Your task to perform on an android device: Is it going to rain today? Image 0: 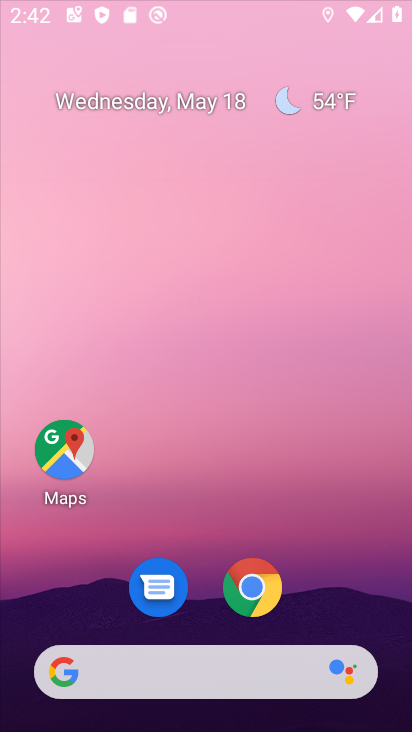
Step 0: drag from (192, 601) to (239, 36)
Your task to perform on an android device: Is it going to rain today? Image 1: 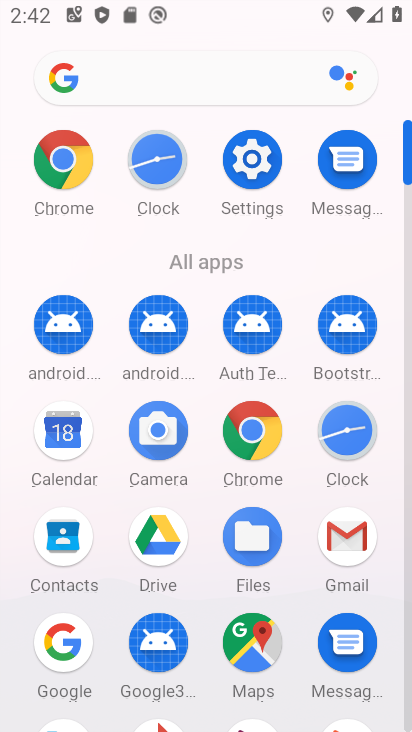
Step 1: click (192, 81)
Your task to perform on an android device: Is it going to rain today? Image 2: 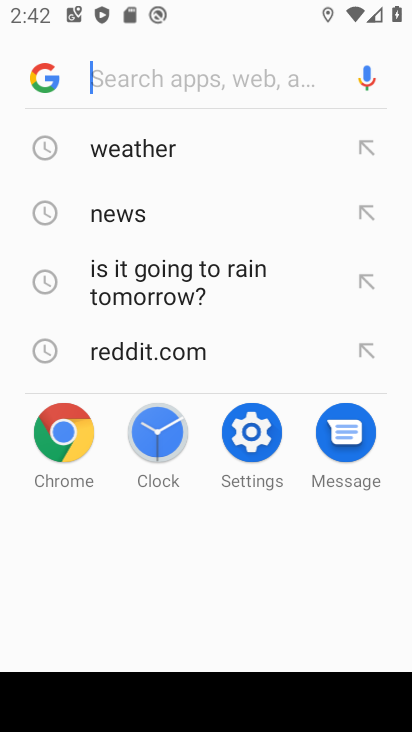
Step 2: type "rain today"
Your task to perform on an android device: Is it going to rain today? Image 3: 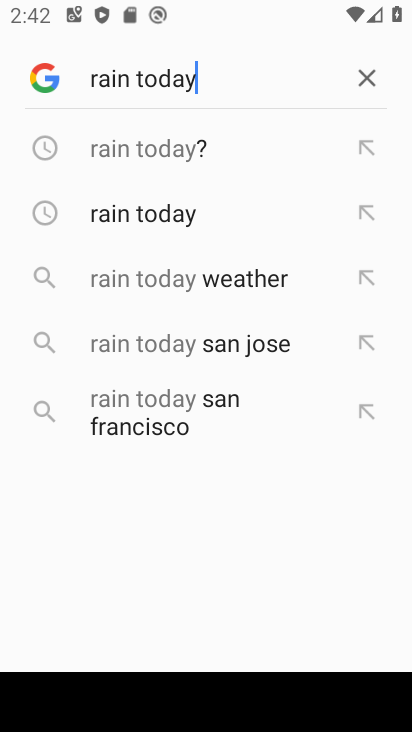
Step 3: click (148, 159)
Your task to perform on an android device: Is it going to rain today? Image 4: 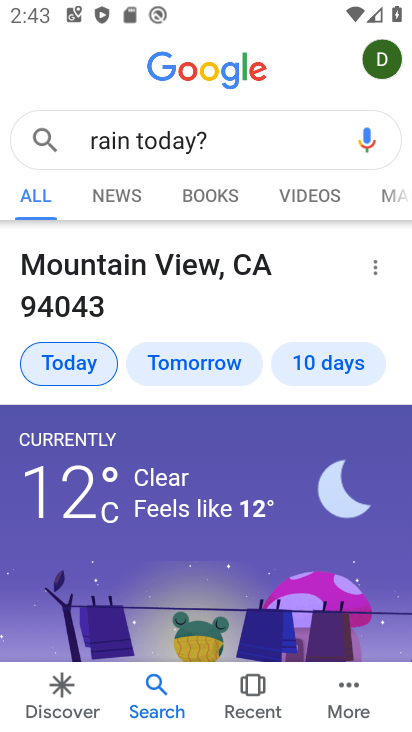
Step 4: task complete